Your task to perform on an android device: Open settings on Google Maps Image 0: 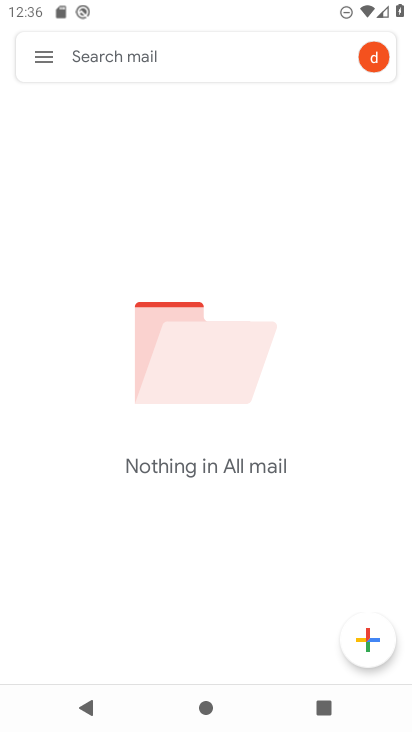
Step 0: press home button
Your task to perform on an android device: Open settings on Google Maps Image 1: 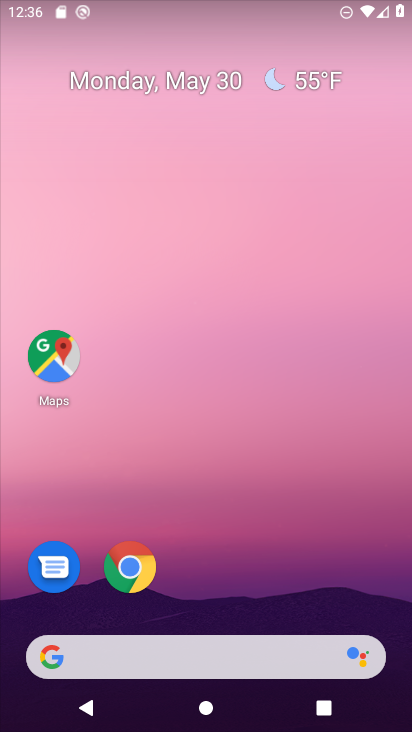
Step 1: click (54, 352)
Your task to perform on an android device: Open settings on Google Maps Image 2: 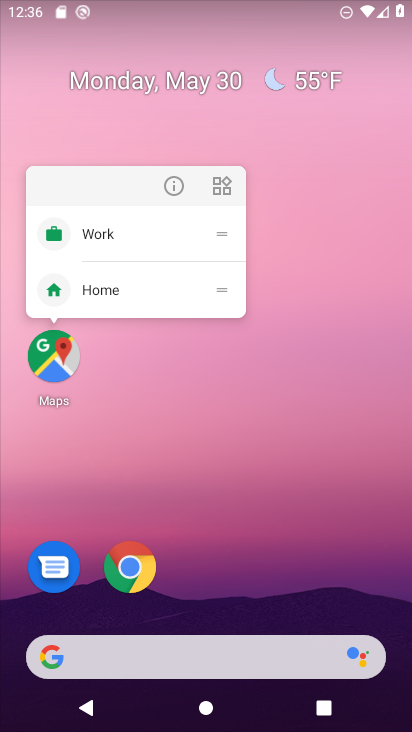
Step 2: click (54, 352)
Your task to perform on an android device: Open settings on Google Maps Image 3: 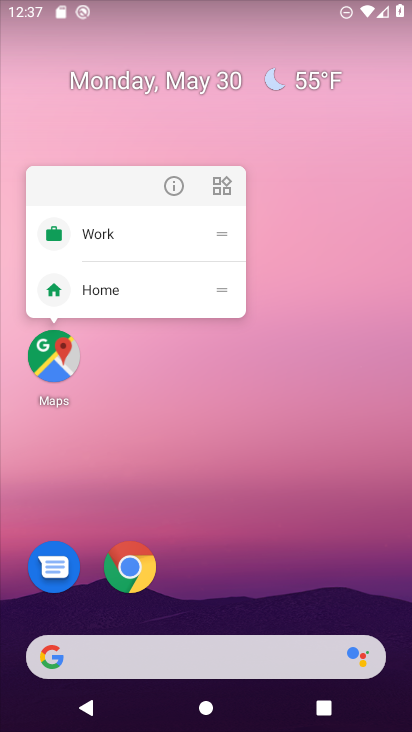
Step 3: click (55, 349)
Your task to perform on an android device: Open settings on Google Maps Image 4: 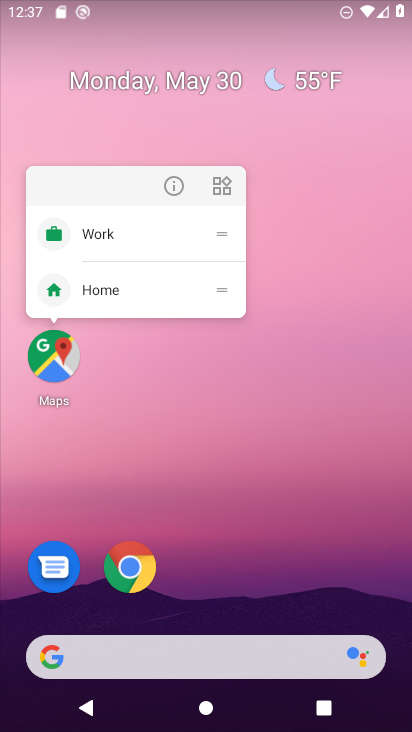
Step 4: click (222, 601)
Your task to perform on an android device: Open settings on Google Maps Image 5: 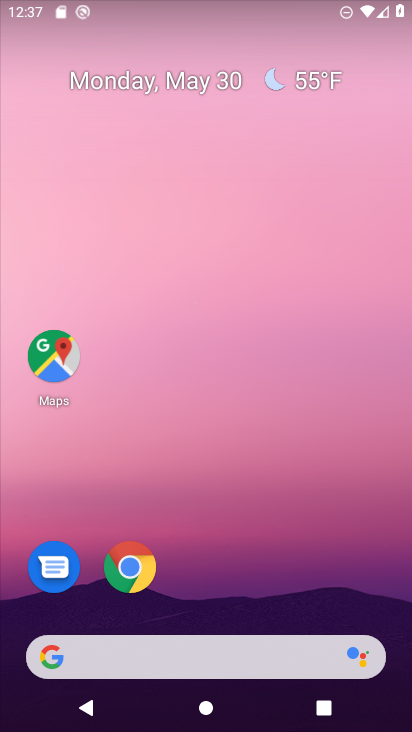
Step 5: drag from (253, 603) to (275, 41)
Your task to perform on an android device: Open settings on Google Maps Image 6: 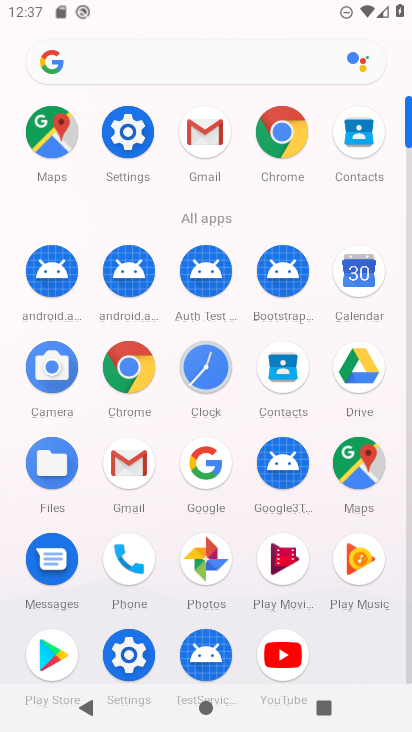
Step 6: click (358, 460)
Your task to perform on an android device: Open settings on Google Maps Image 7: 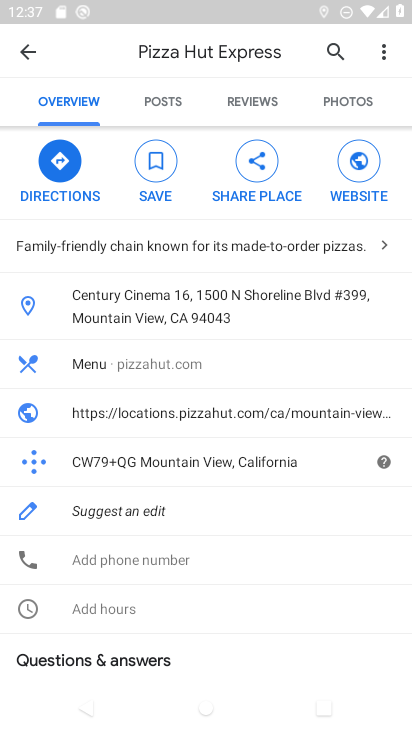
Step 7: click (36, 49)
Your task to perform on an android device: Open settings on Google Maps Image 8: 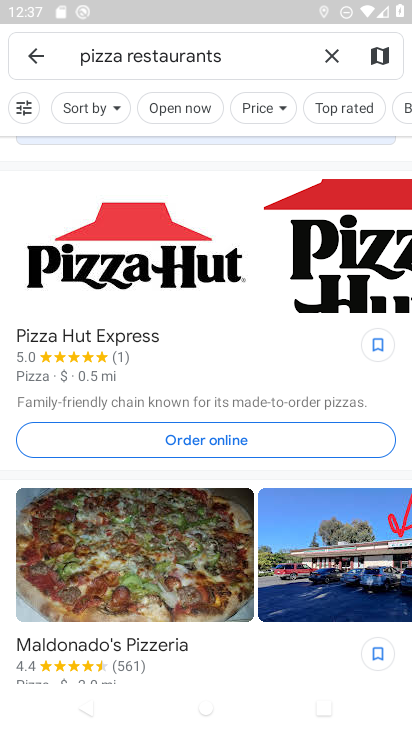
Step 8: click (40, 58)
Your task to perform on an android device: Open settings on Google Maps Image 9: 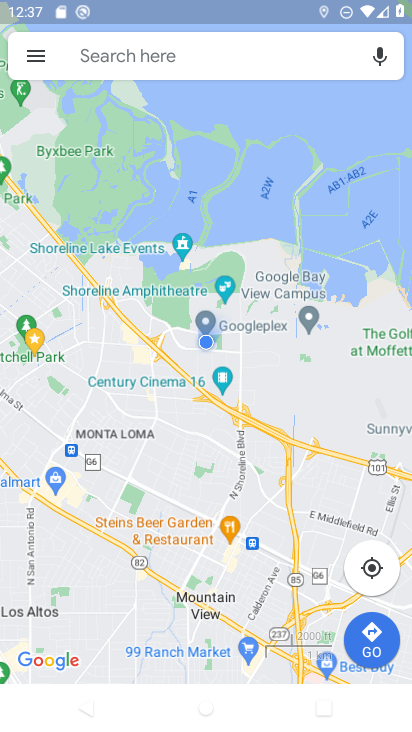
Step 9: click (39, 55)
Your task to perform on an android device: Open settings on Google Maps Image 10: 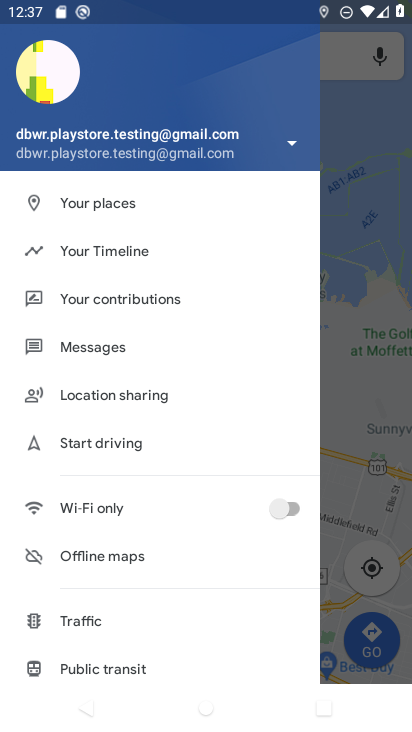
Step 10: drag from (142, 639) to (161, 91)
Your task to perform on an android device: Open settings on Google Maps Image 11: 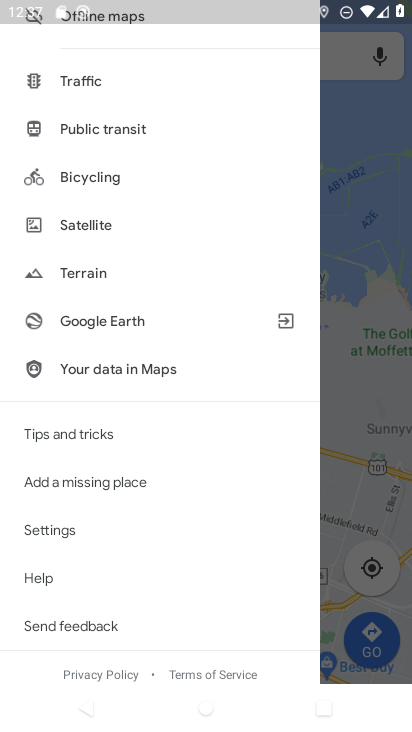
Step 11: click (97, 518)
Your task to perform on an android device: Open settings on Google Maps Image 12: 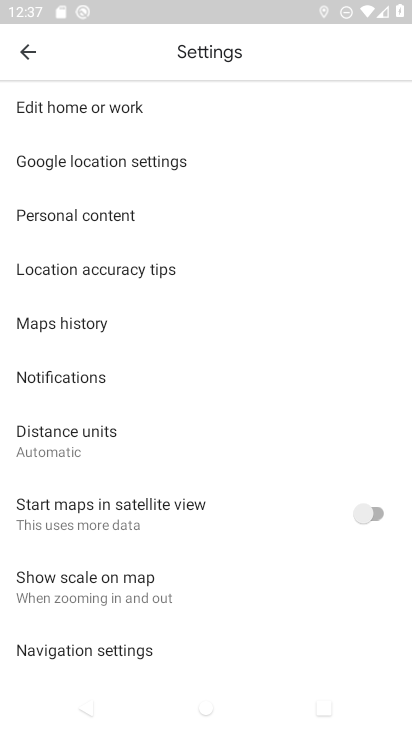
Step 12: task complete